Your task to perform on an android device: Show me recent news Image 0: 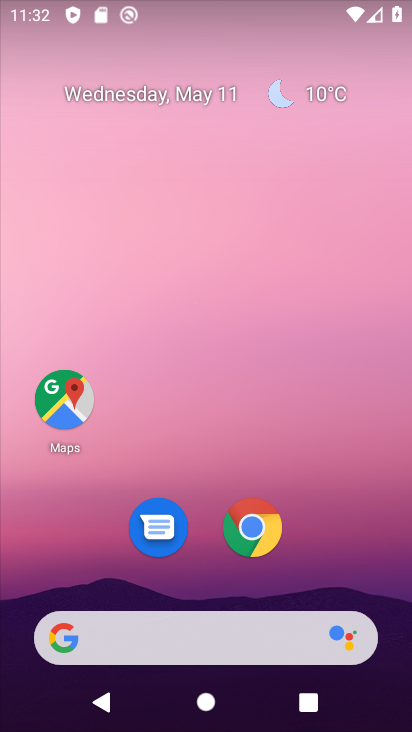
Step 0: drag from (226, 584) to (284, 0)
Your task to perform on an android device: Show me recent news Image 1: 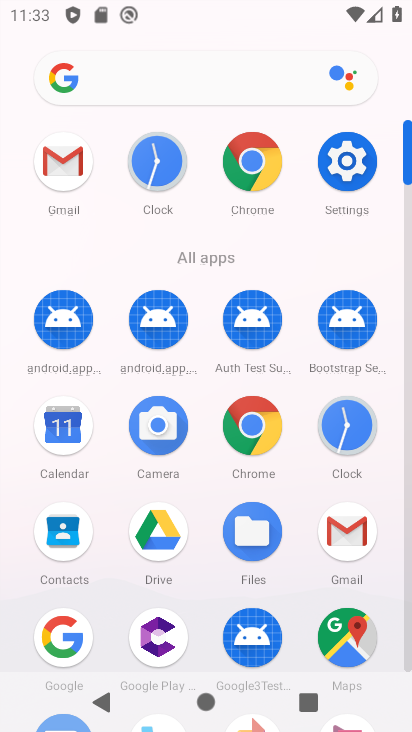
Step 1: click (215, 71)
Your task to perform on an android device: Show me recent news Image 2: 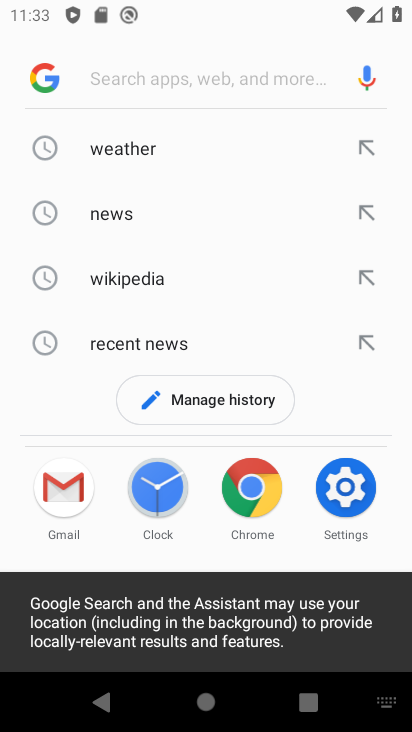
Step 2: click (170, 345)
Your task to perform on an android device: Show me recent news Image 3: 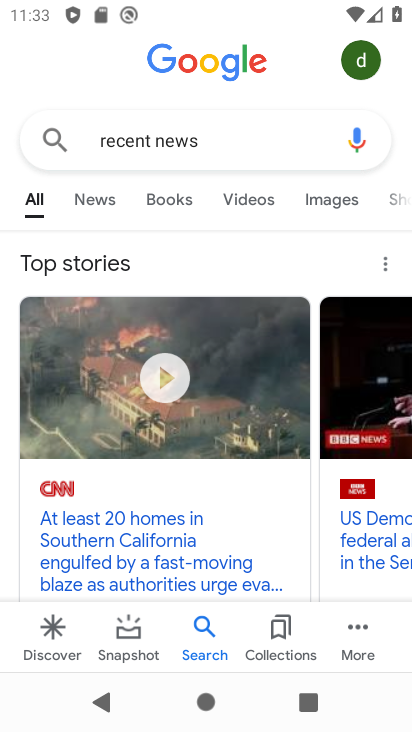
Step 3: task complete